Your task to perform on an android device: manage bookmarks in the chrome app Image 0: 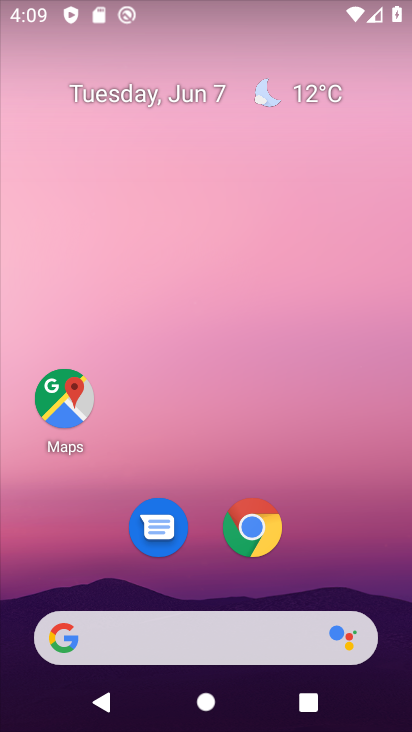
Step 0: click (251, 527)
Your task to perform on an android device: manage bookmarks in the chrome app Image 1: 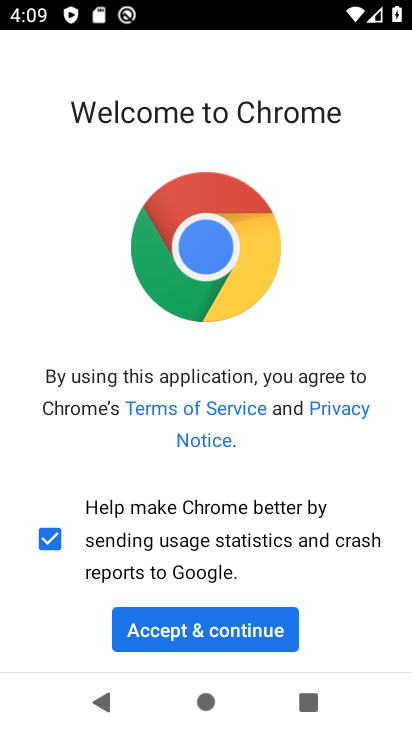
Step 1: click (222, 626)
Your task to perform on an android device: manage bookmarks in the chrome app Image 2: 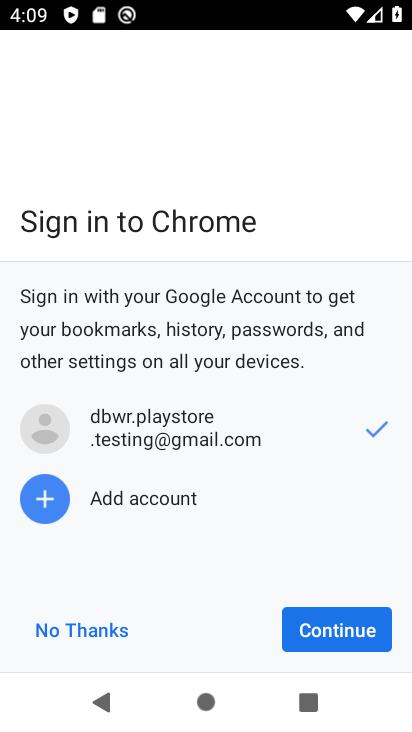
Step 2: click (317, 628)
Your task to perform on an android device: manage bookmarks in the chrome app Image 3: 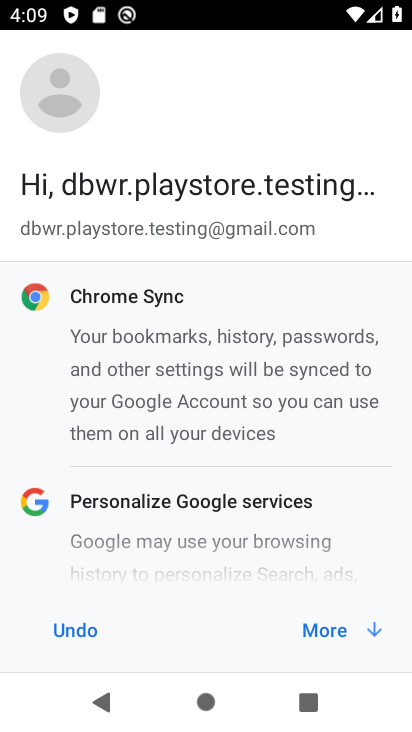
Step 3: click (327, 628)
Your task to perform on an android device: manage bookmarks in the chrome app Image 4: 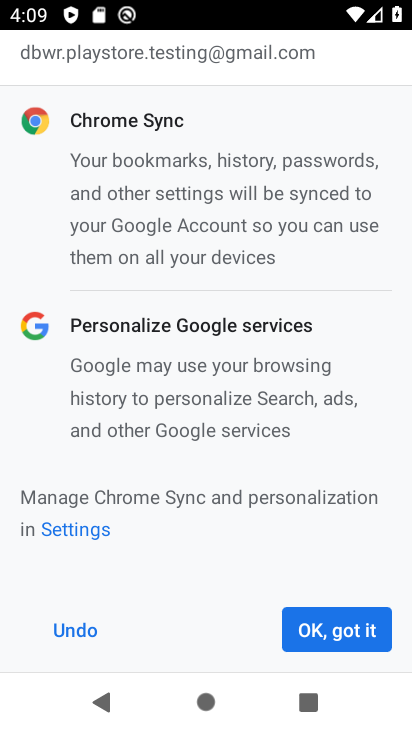
Step 4: click (327, 628)
Your task to perform on an android device: manage bookmarks in the chrome app Image 5: 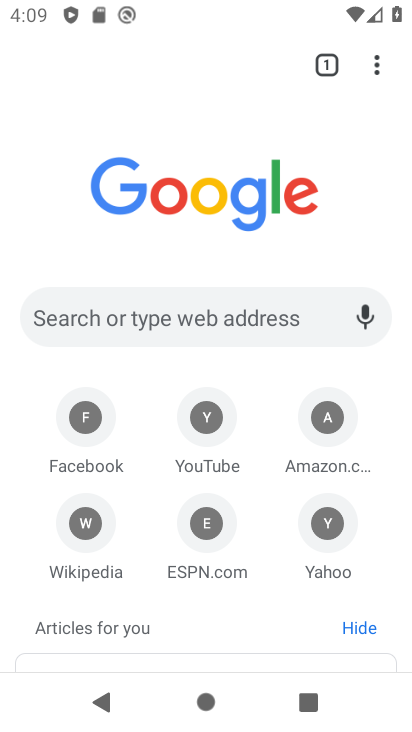
Step 5: click (377, 65)
Your task to perform on an android device: manage bookmarks in the chrome app Image 6: 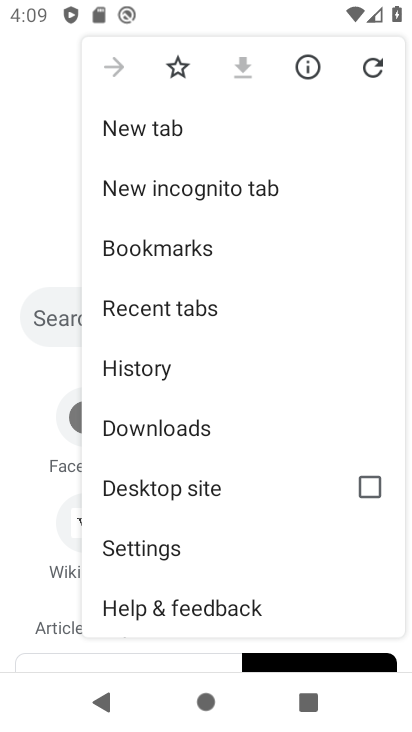
Step 6: drag from (191, 461) to (200, 330)
Your task to perform on an android device: manage bookmarks in the chrome app Image 7: 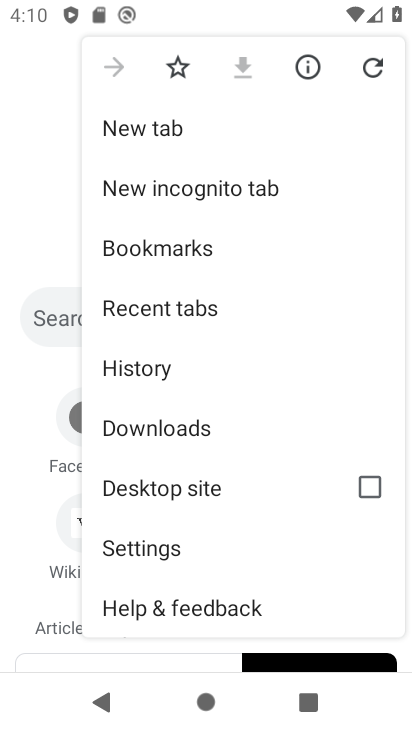
Step 7: click (181, 251)
Your task to perform on an android device: manage bookmarks in the chrome app Image 8: 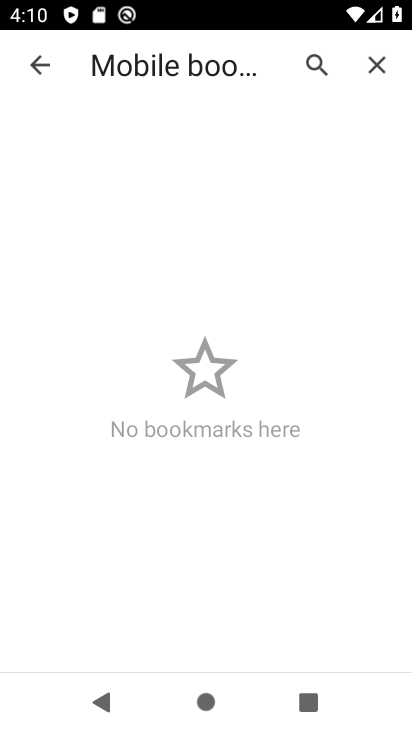
Step 8: task complete